Your task to perform on an android device: change notification settings in the gmail app Image 0: 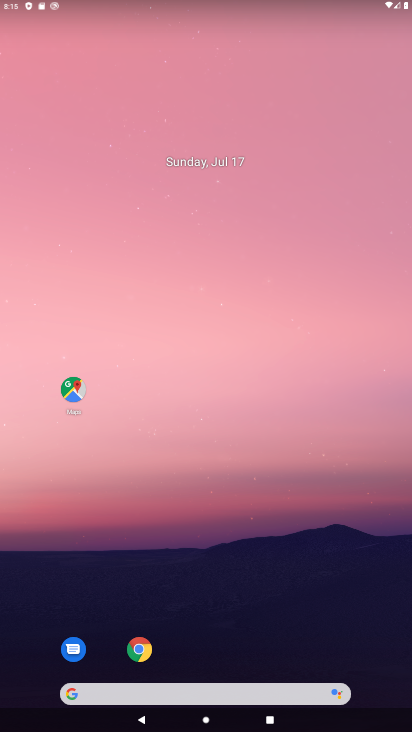
Step 0: drag from (204, 656) to (222, 202)
Your task to perform on an android device: change notification settings in the gmail app Image 1: 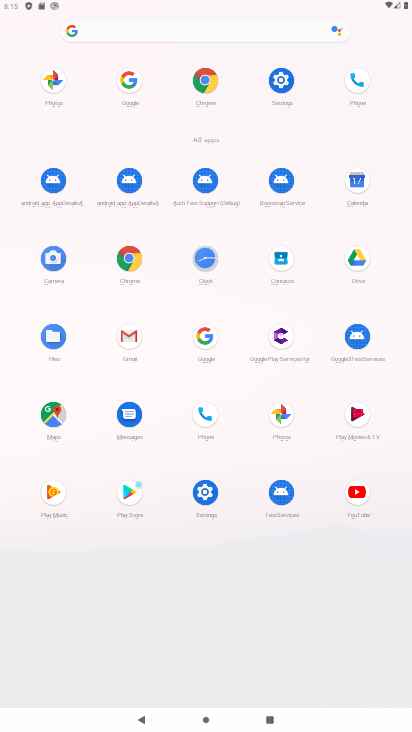
Step 1: click (128, 336)
Your task to perform on an android device: change notification settings in the gmail app Image 2: 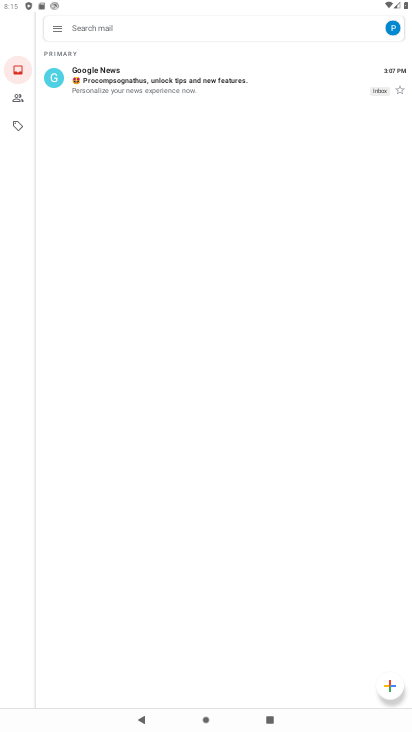
Step 2: click (58, 29)
Your task to perform on an android device: change notification settings in the gmail app Image 3: 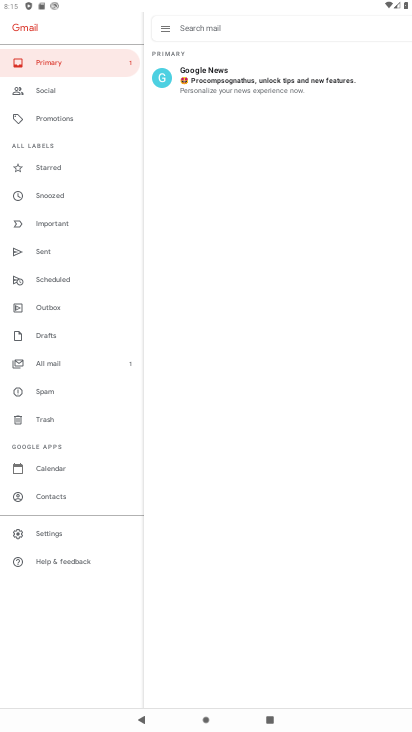
Step 3: click (164, 28)
Your task to perform on an android device: change notification settings in the gmail app Image 4: 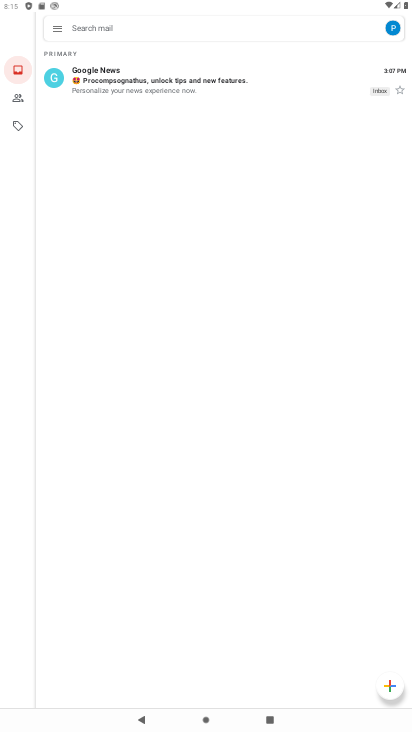
Step 4: click (56, 22)
Your task to perform on an android device: change notification settings in the gmail app Image 5: 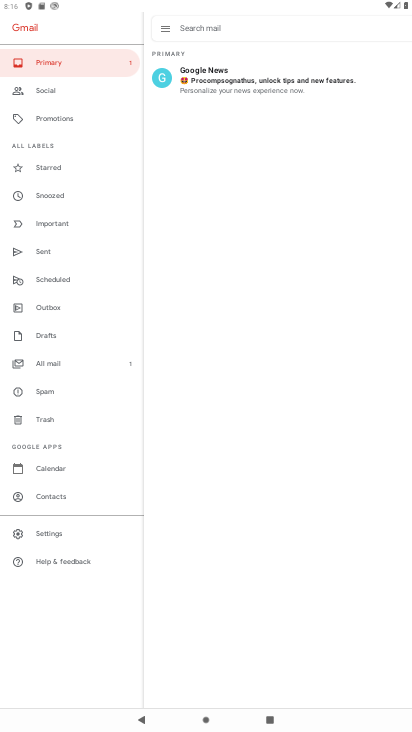
Step 5: click (24, 535)
Your task to perform on an android device: change notification settings in the gmail app Image 6: 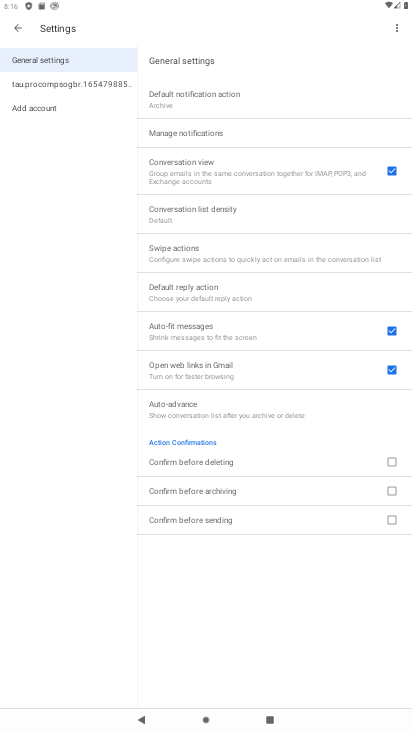
Step 6: click (60, 83)
Your task to perform on an android device: change notification settings in the gmail app Image 7: 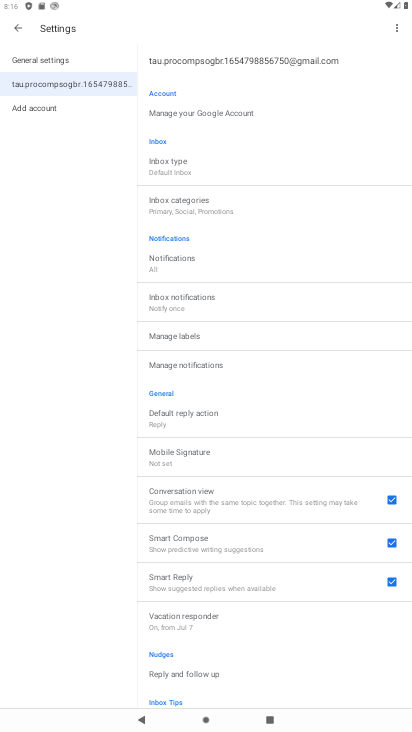
Step 7: click (189, 260)
Your task to perform on an android device: change notification settings in the gmail app Image 8: 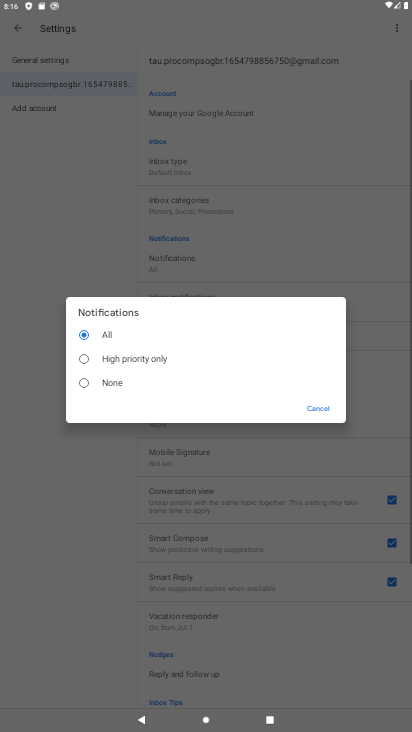
Step 8: click (80, 378)
Your task to perform on an android device: change notification settings in the gmail app Image 9: 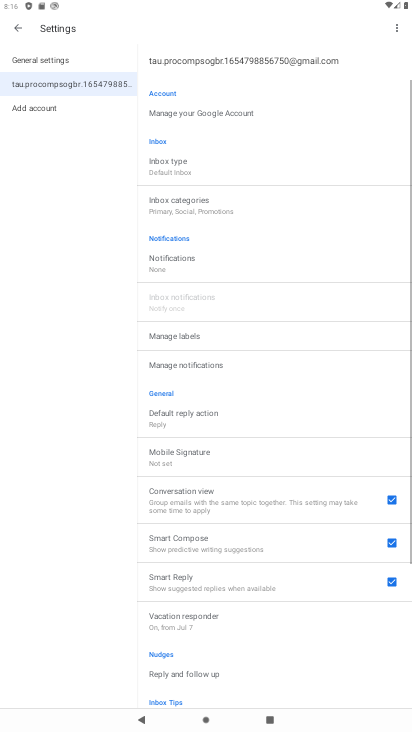
Step 9: task complete